Your task to perform on an android device: Search for Mexican restaurants on Maps Image 0: 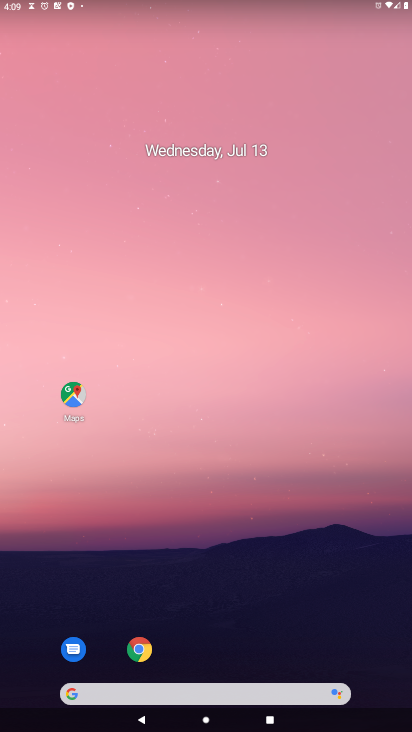
Step 0: drag from (239, 684) to (234, 19)
Your task to perform on an android device: Search for Mexican restaurants on Maps Image 1: 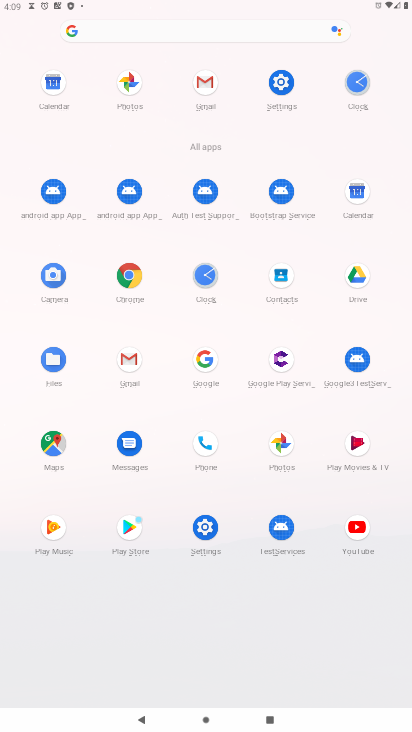
Step 1: click (59, 443)
Your task to perform on an android device: Search for Mexican restaurants on Maps Image 2: 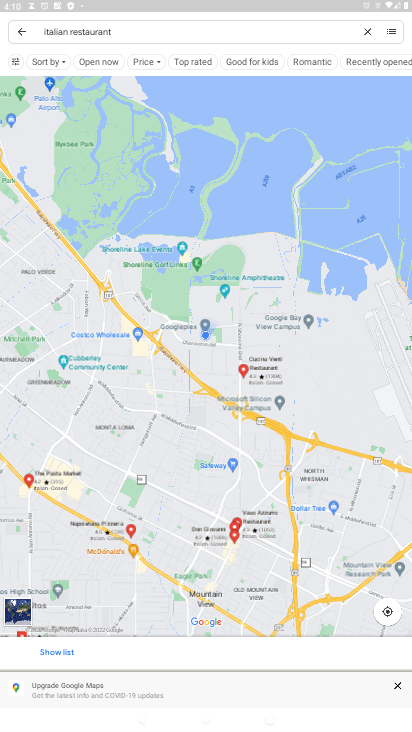
Step 2: click (180, 29)
Your task to perform on an android device: Search for Mexican restaurants on Maps Image 3: 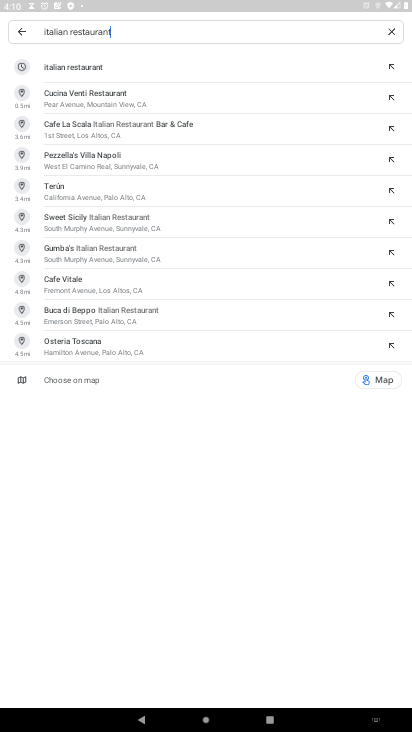
Step 3: click (387, 28)
Your task to perform on an android device: Search for Mexican restaurants on Maps Image 4: 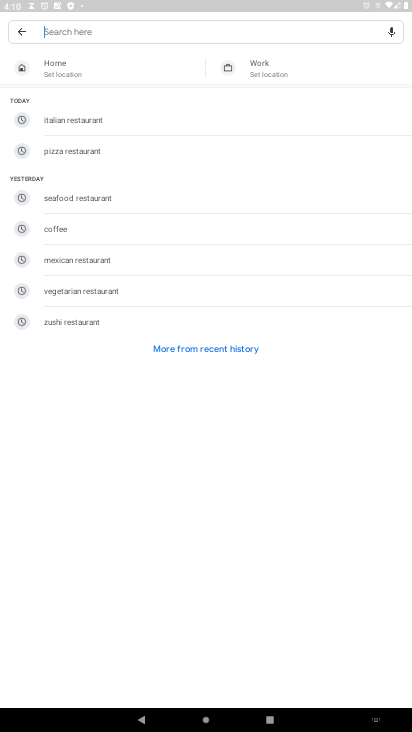
Step 4: type "Mexican restaurants"
Your task to perform on an android device: Search for Mexican restaurants on Maps Image 5: 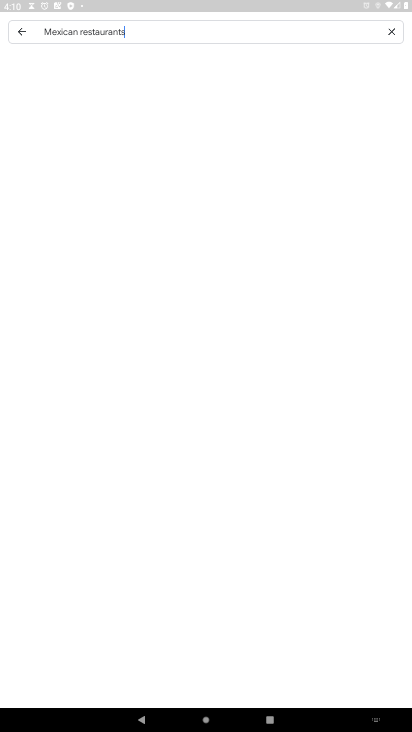
Step 5: type ""
Your task to perform on an android device: Search for Mexican restaurants on Maps Image 6: 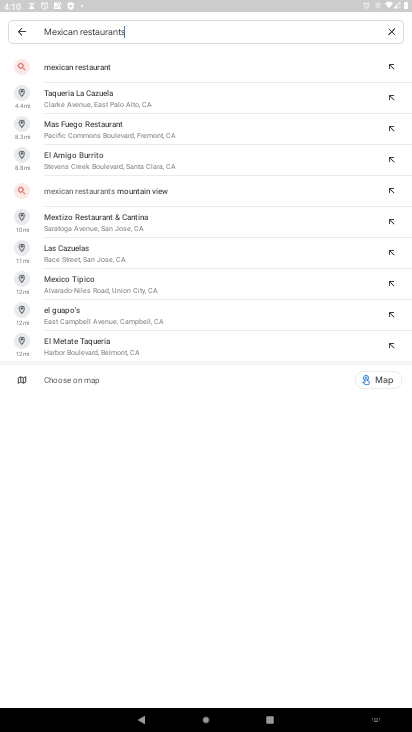
Step 6: click (106, 65)
Your task to perform on an android device: Search for Mexican restaurants on Maps Image 7: 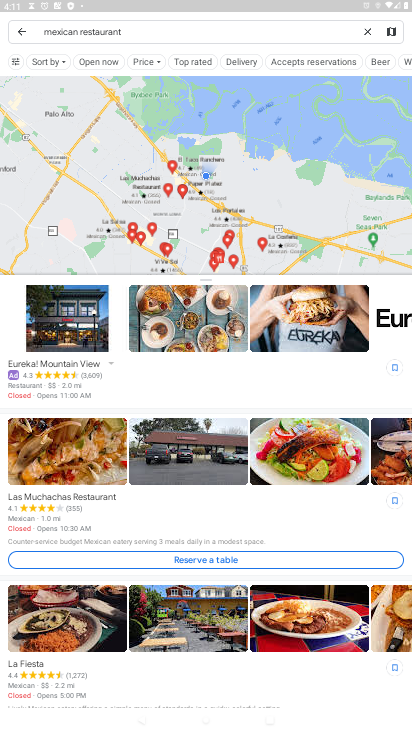
Step 7: task complete